Your task to perform on an android device: Open sound settings Image 0: 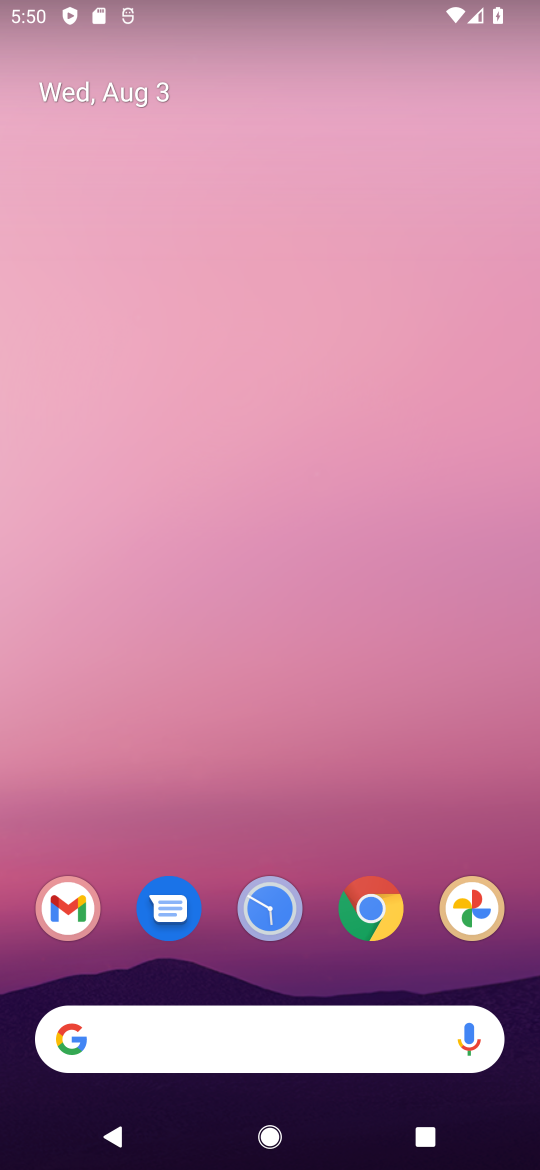
Step 0: drag from (226, 935) to (287, 162)
Your task to perform on an android device: Open sound settings Image 1: 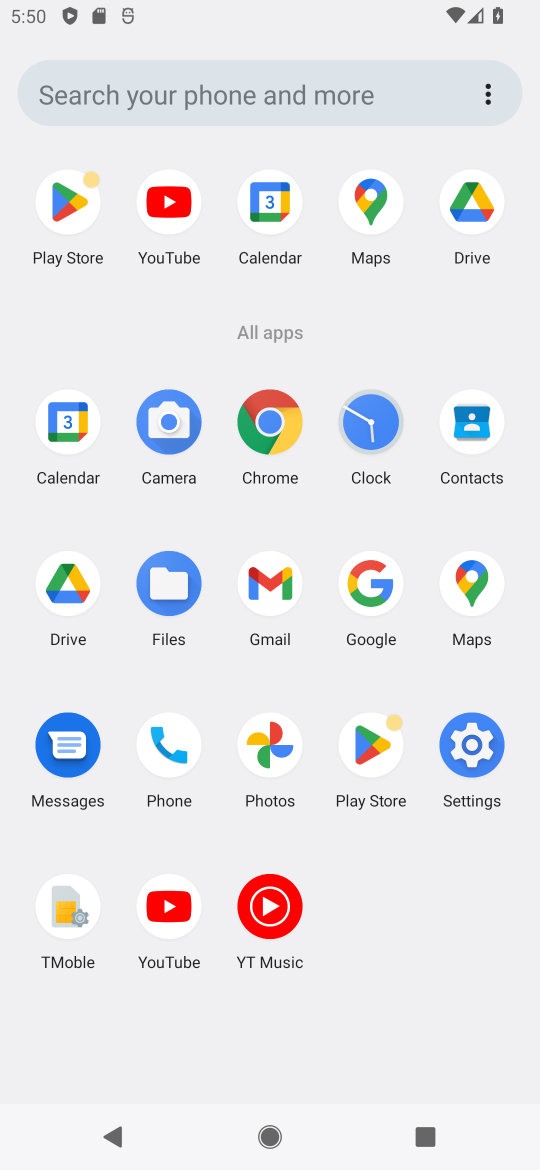
Step 1: click (486, 763)
Your task to perform on an android device: Open sound settings Image 2: 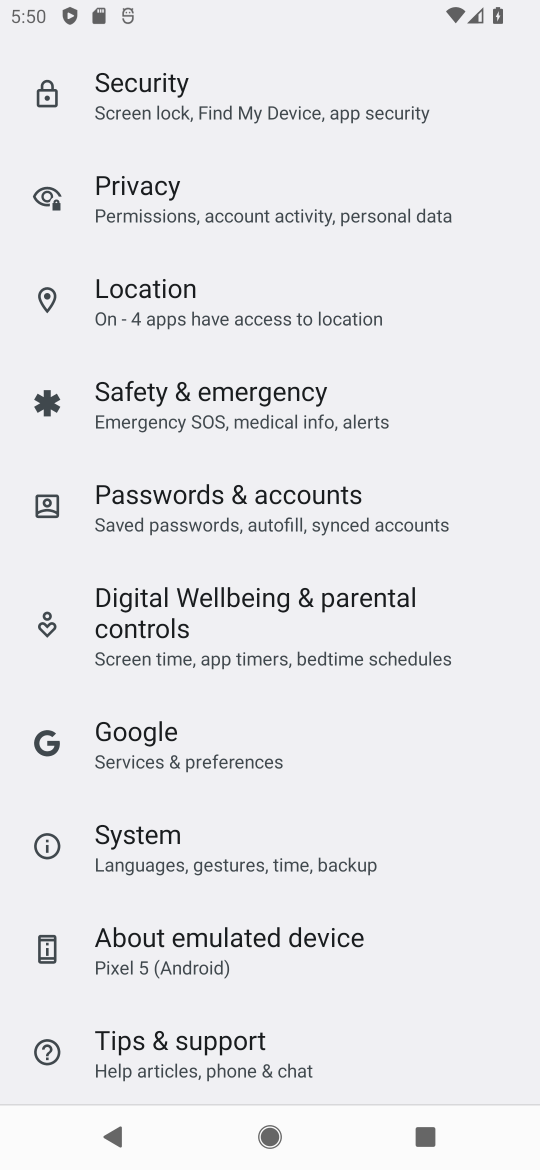
Step 2: drag from (194, 468) to (203, 960)
Your task to perform on an android device: Open sound settings Image 3: 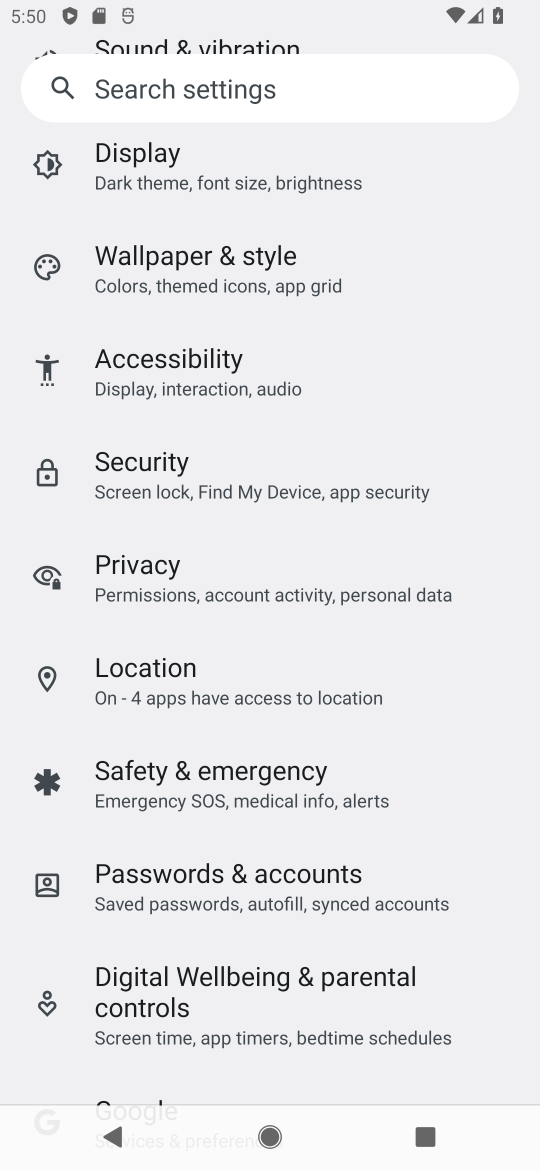
Step 3: drag from (234, 299) to (243, 800)
Your task to perform on an android device: Open sound settings Image 4: 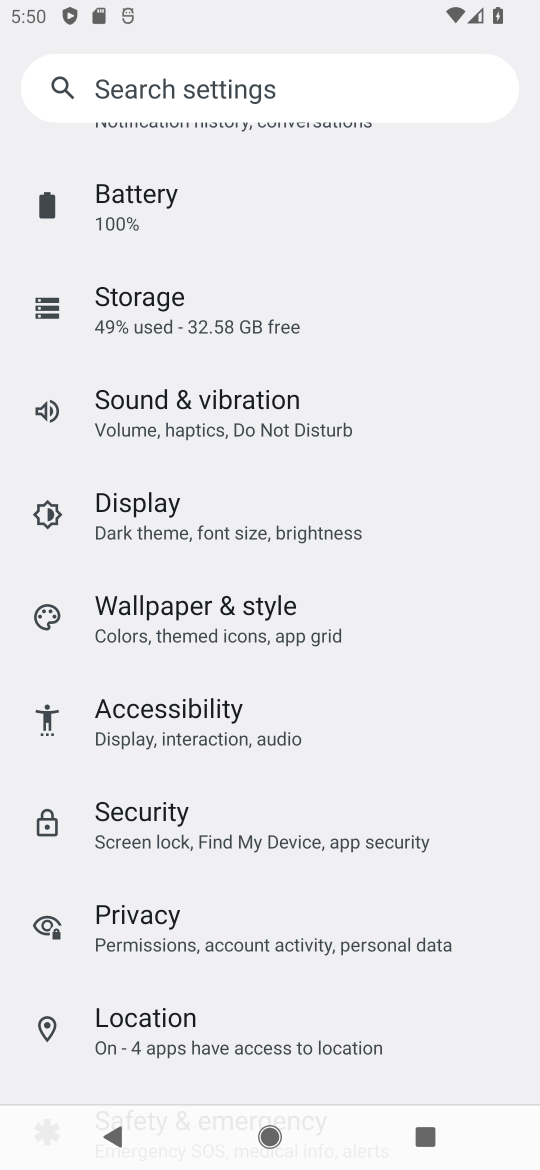
Step 4: drag from (200, 231) to (217, 422)
Your task to perform on an android device: Open sound settings Image 5: 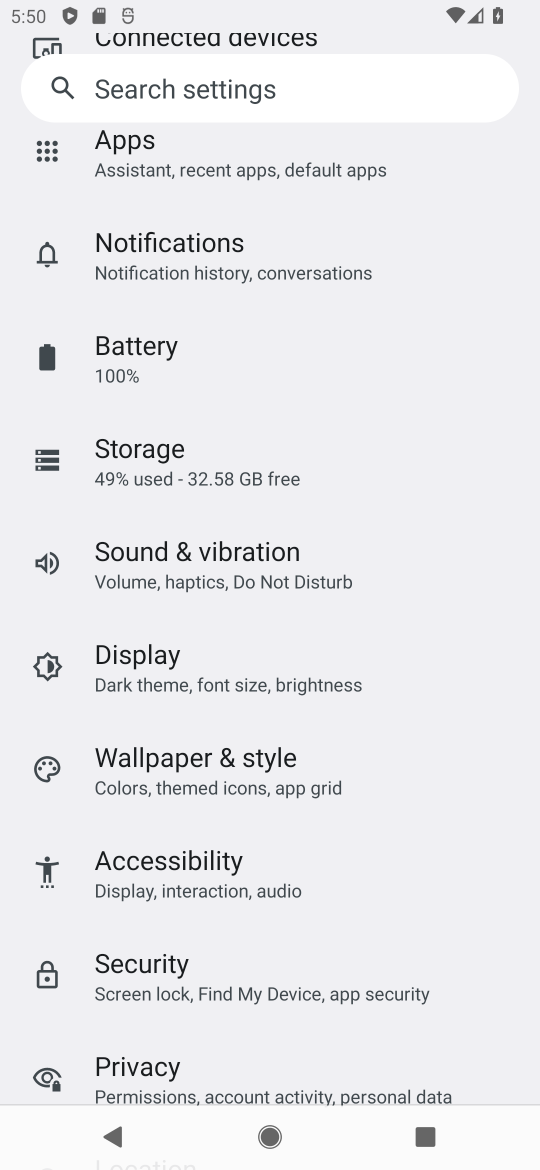
Step 5: click (141, 574)
Your task to perform on an android device: Open sound settings Image 6: 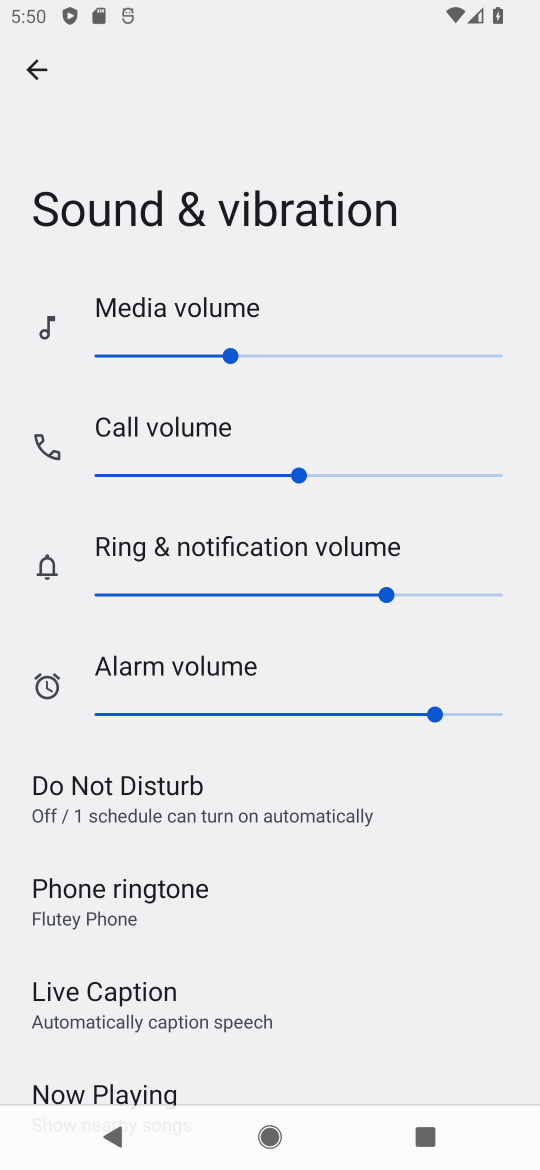
Step 6: task complete